Your task to perform on an android device: Go to ESPN.com Image 0: 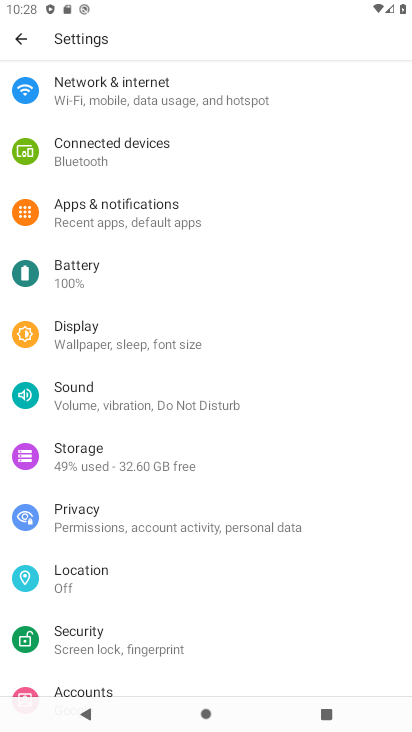
Step 0: press home button
Your task to perform on an android device: Go to ESPN.com Image 1: 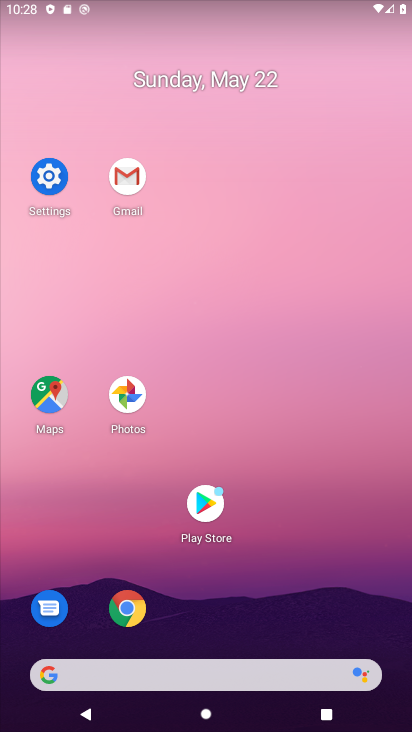
Step 1: click (127, 614)
Your task to perform on an android device: Go to ESPN.com Image 2: 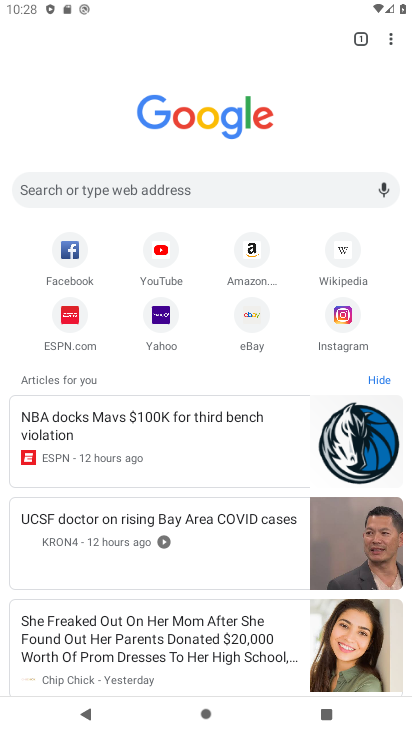
Step 2: click (72, 323)
Your task to perform on an android device: Go to ESPN.com Image 3: 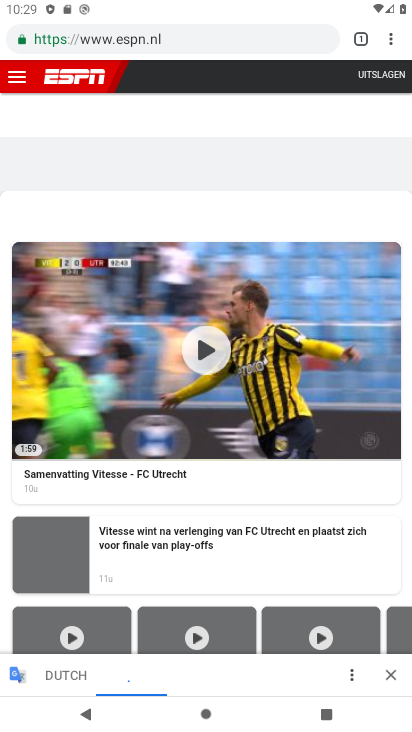
Step 3: task complete